Your task to perform on an android device: Go to Maps Image 0: 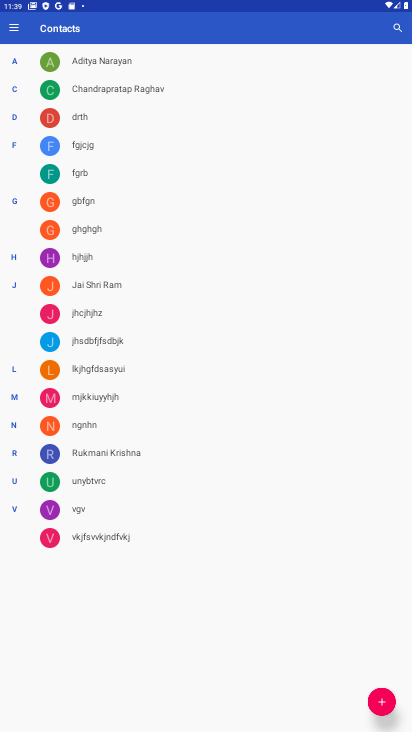
Step 0: press home button
Your task to perform on an android device: Go to Maps Image 1: 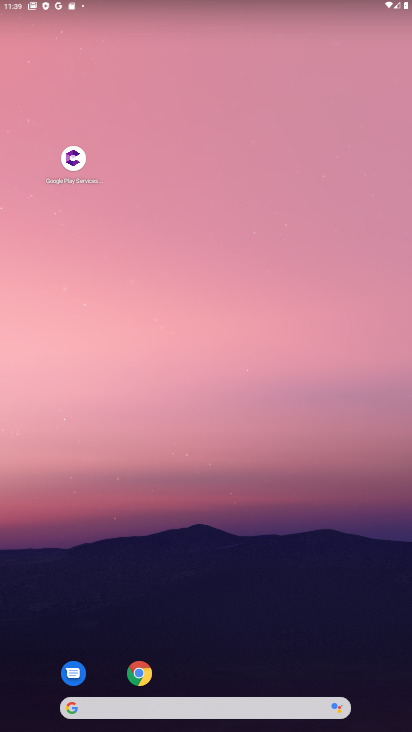
Step 1: drag from (194, 569) to (297, 22)
Your task to perform on an android device: Go to Maps Image 2: 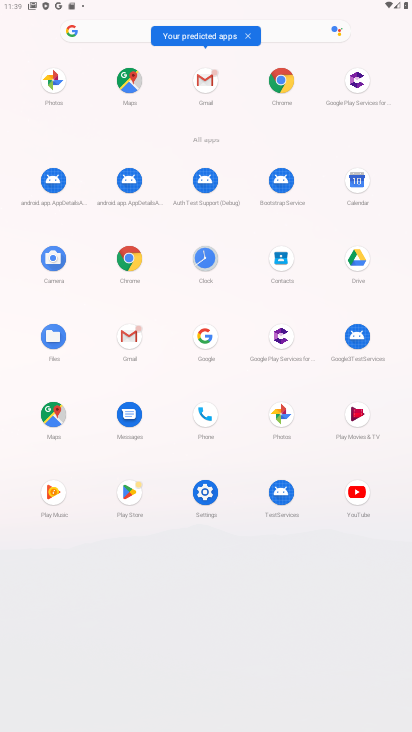
Step 2: click (50, 423)
Your task to perform on an android device: Go to Maps Image 3: 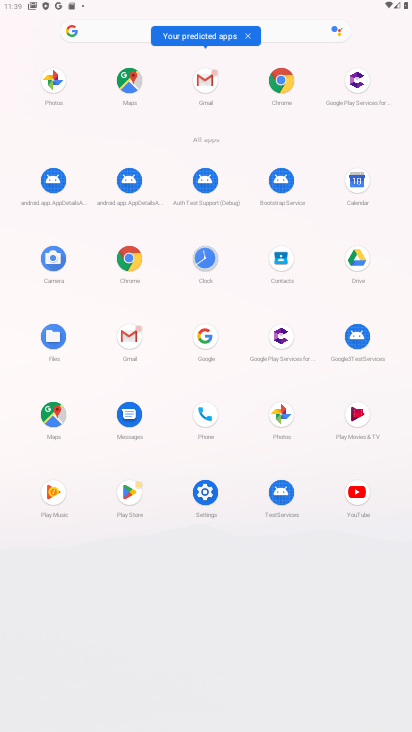
Step 3: click (50, 423)
Your task to perform on an android device: Go to Maps Image 4: 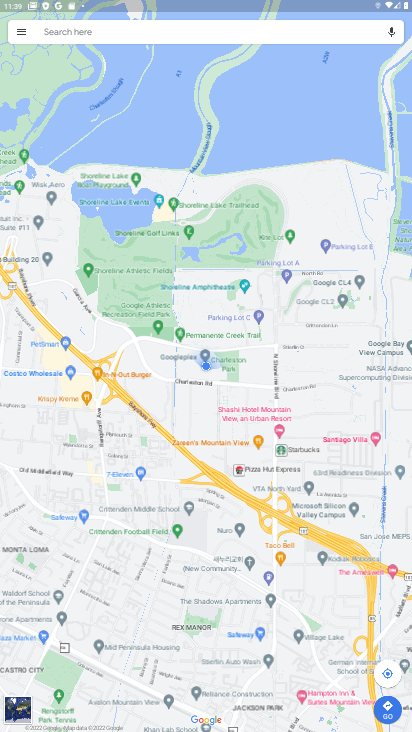
Step 4: task complete